Your task to perform on an android device: open device folders in google photos Image 0: 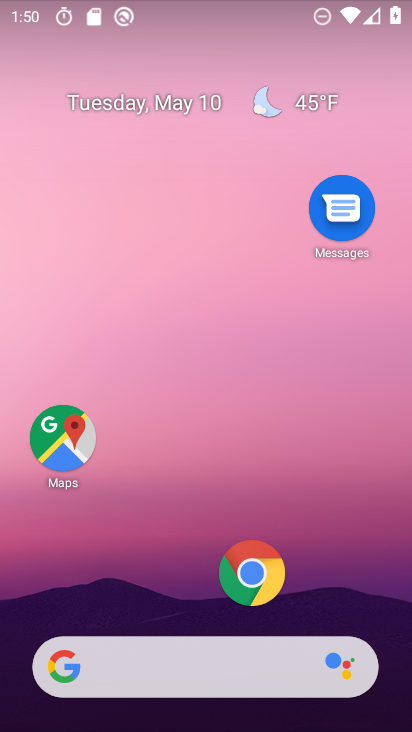
Step 0: click (178, 326)
Your task to perform on an android device: open device folders in google photos Image 1: 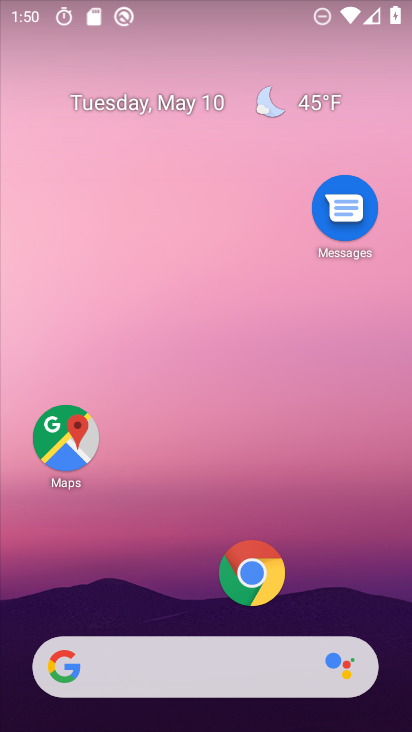
Step 1: drag from (210, 622) to (203, 343)
Your task to perform on an android device: open device folders in google photos Image 2: 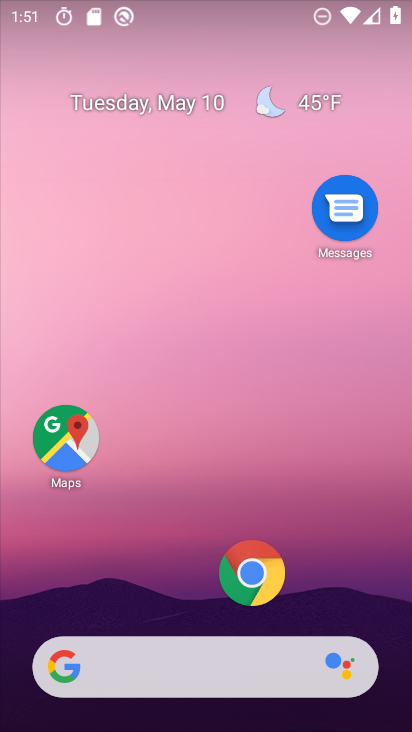
Step 2: drag from (215, 588) to (213, 180)
Your task to perform on an android device: open device folders in google photos Image 3: 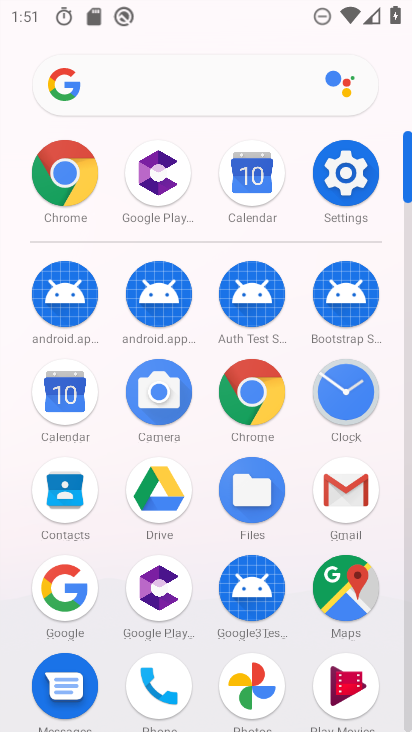
Step 3: drag from (192, 570) to (193, 153)
Your task to perform on an android device: open device folders in google photos Image 4: 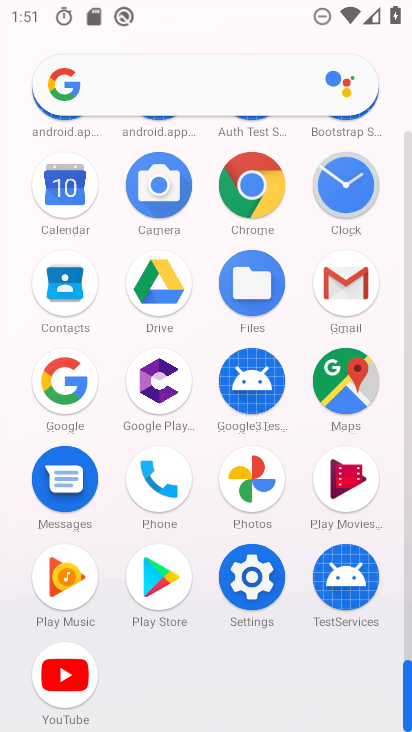
Step 4: click (253, 484)
Your task to perform on an android device: open device folders in google photos Image 5: 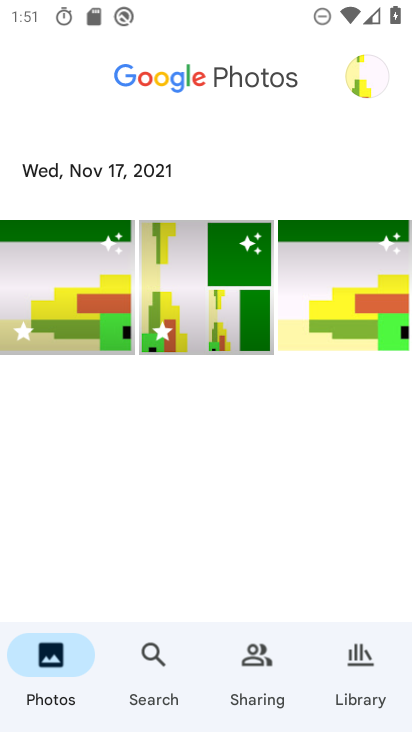
Step 5: click (352, 668)
Your task to perform on an android device: open device folders in google photos Image 6: 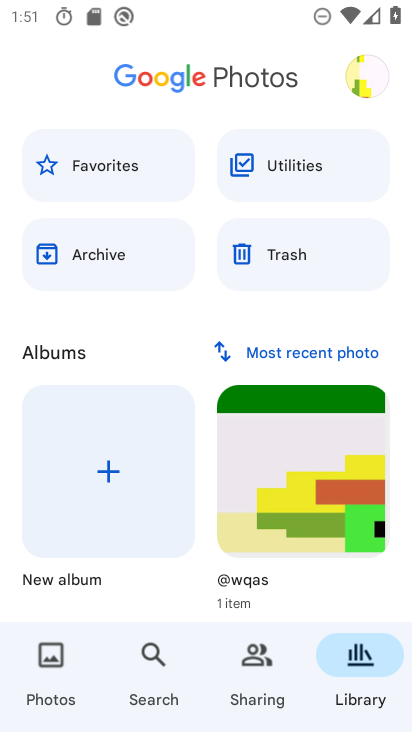
Step 6: task complete